Your task to perform on an android device: Is it going to rain today? Image 0: 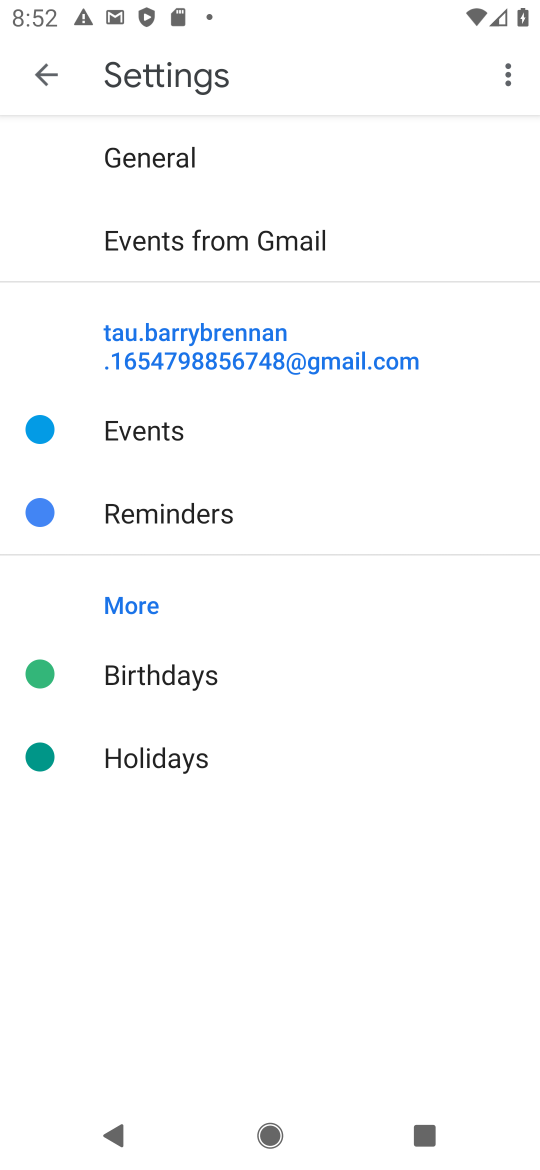
Step 0: press home button
Your task to perform on an android device: Is it going to rain today? Image 1: 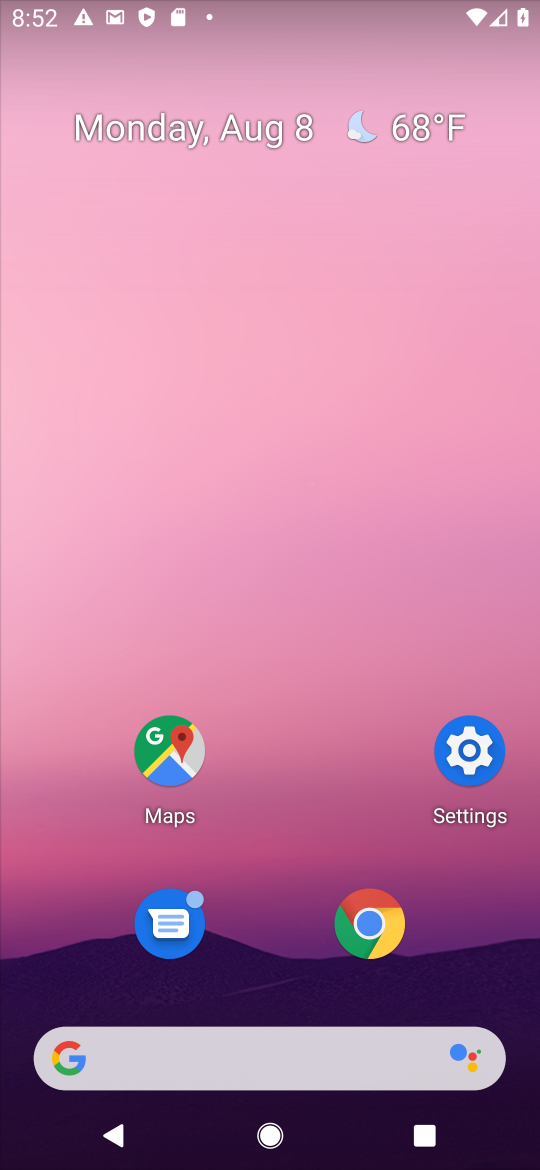
Step 1: click (167, 1051)
Your task to perform on an android device: Is it going to rain today? Image 2: 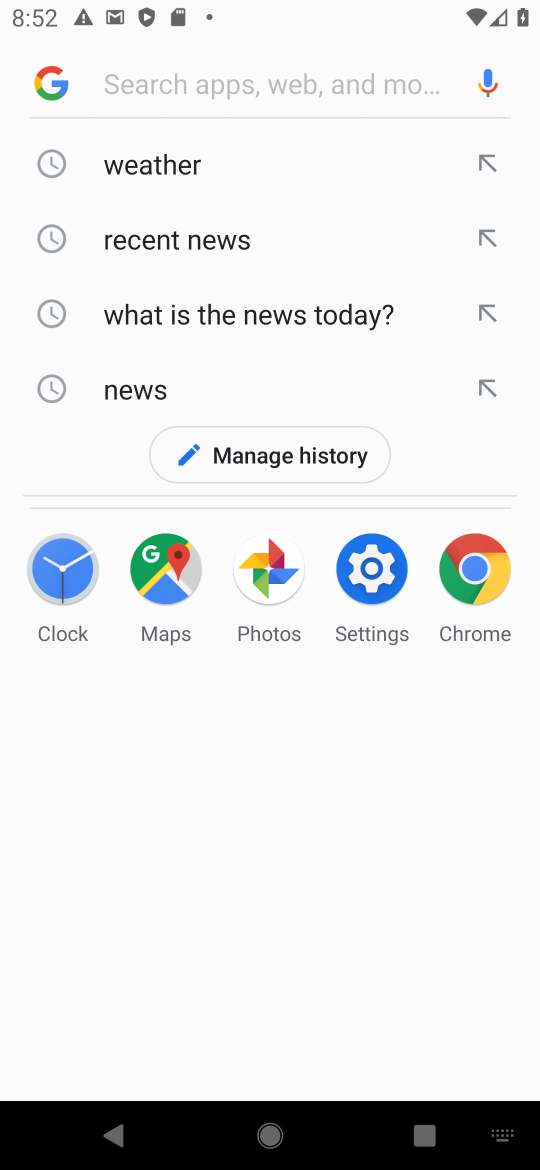
Step 2: click (164, 158)
Your task to perform on an android device: Is it going to rain today? Image 3: 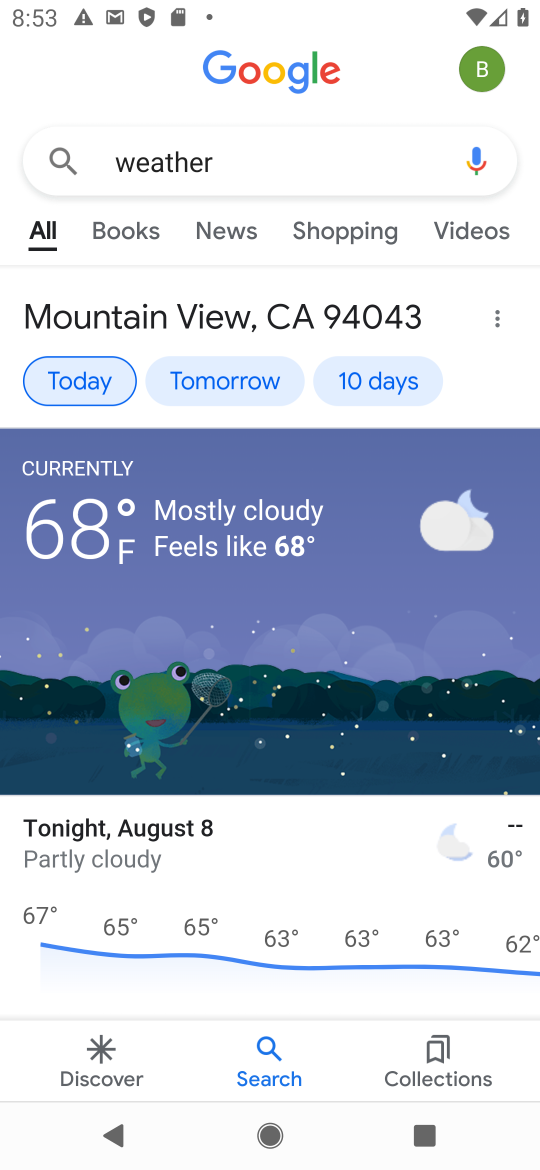
Step 3: task complete